Your task to perform on an android device: clear all cookies in the chrome app Image 0: 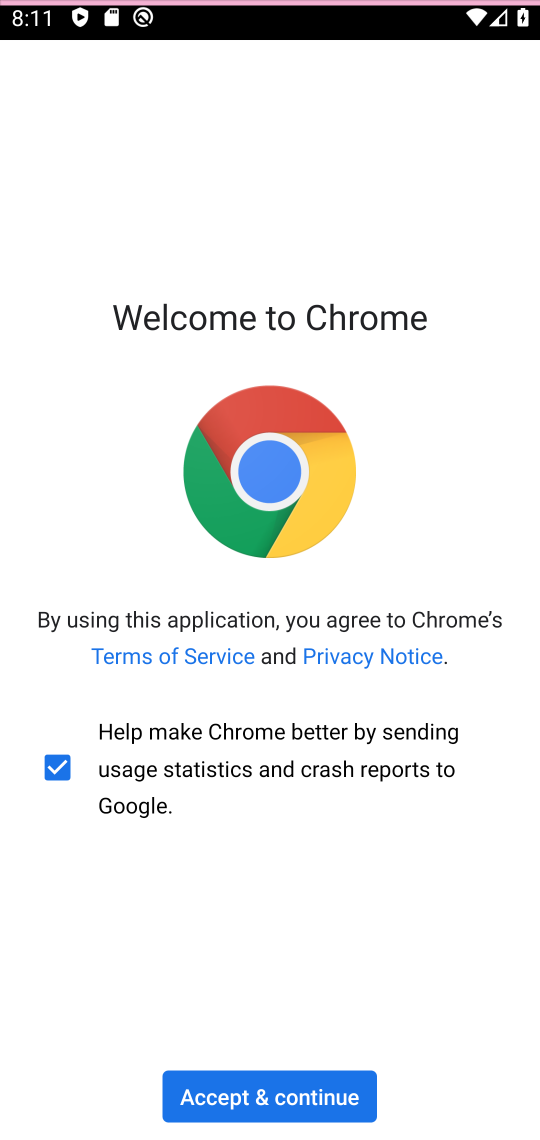
Step 0: press home button
Your task to perform on an android device: clear all cookies in the chrome app Image 1: 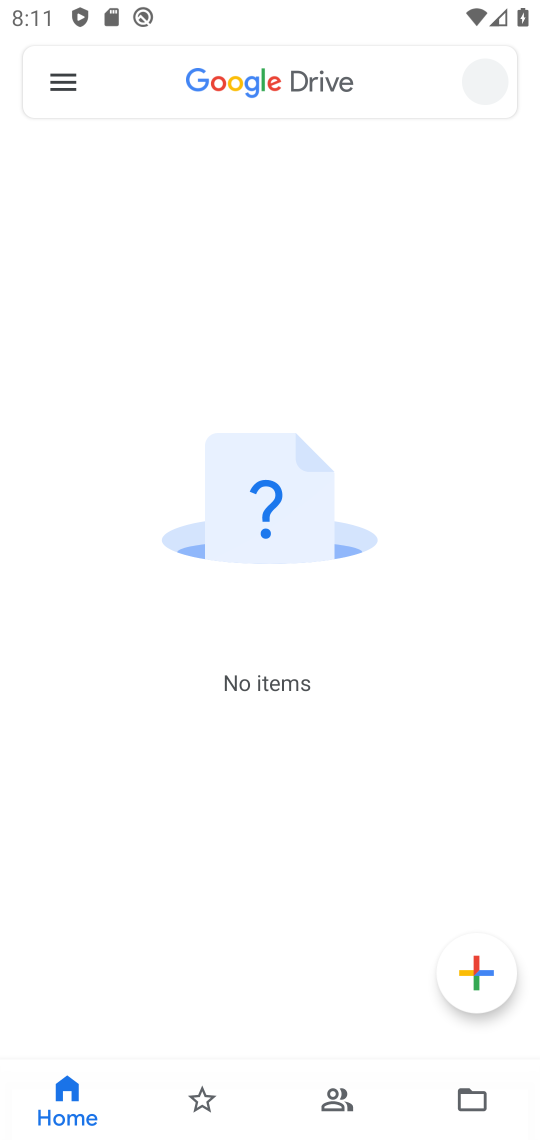
Step 1: press home button
Your task to perform on an android device: clear all cookies in the chrome app Image 2: 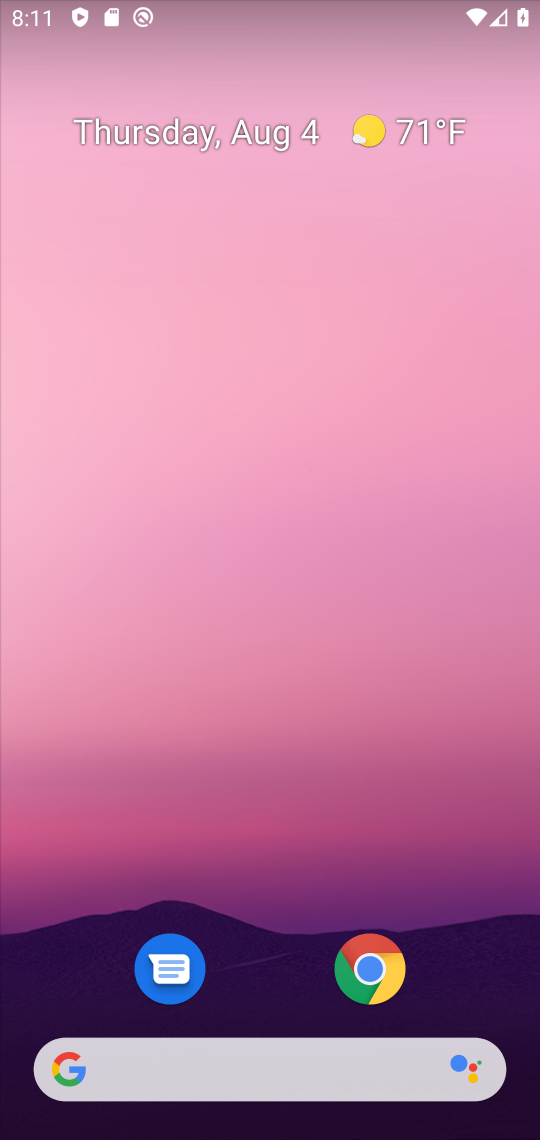
Step 2: press home button
Your task to perform on an android device: clear all cookies in the chrome app Image 3: 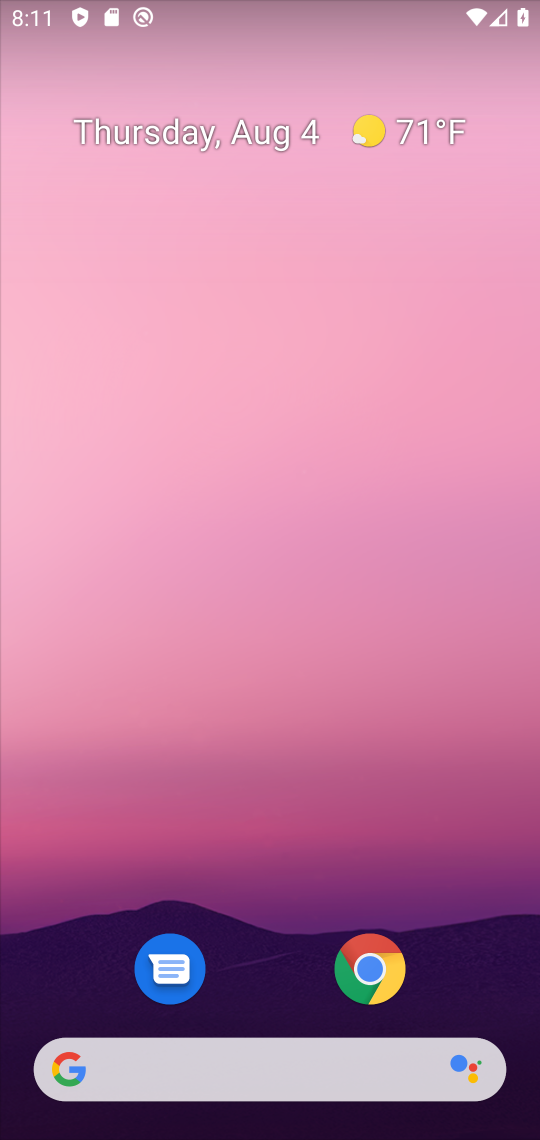
Step 3: press home button
Your task to perform on an android device: clear all cookies in the chrome app Image 4: 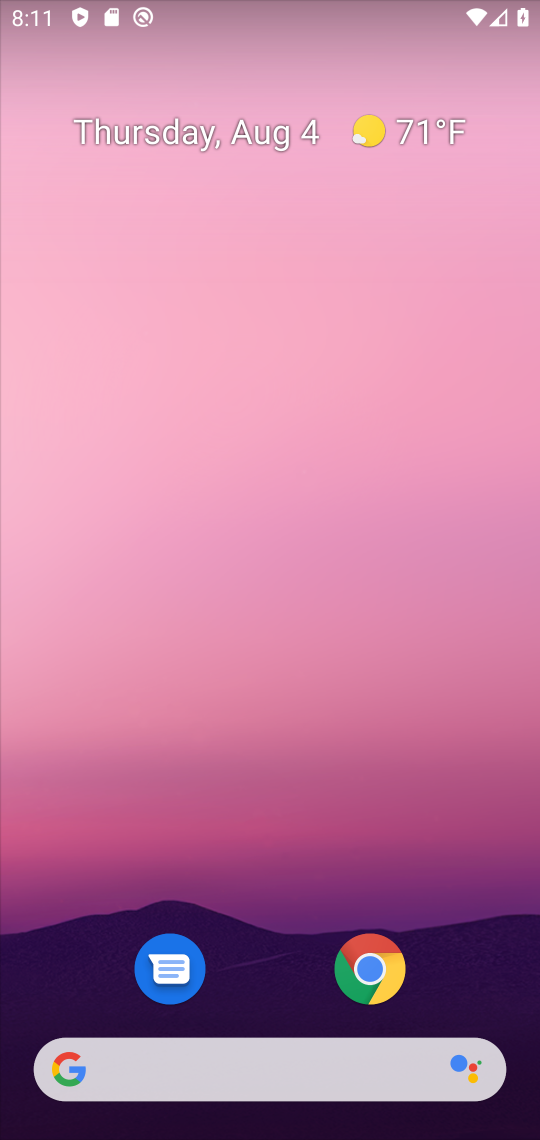
Step 4: press home button
Your task to perform on an android device: clear all cookies in the chrome app Image 5: 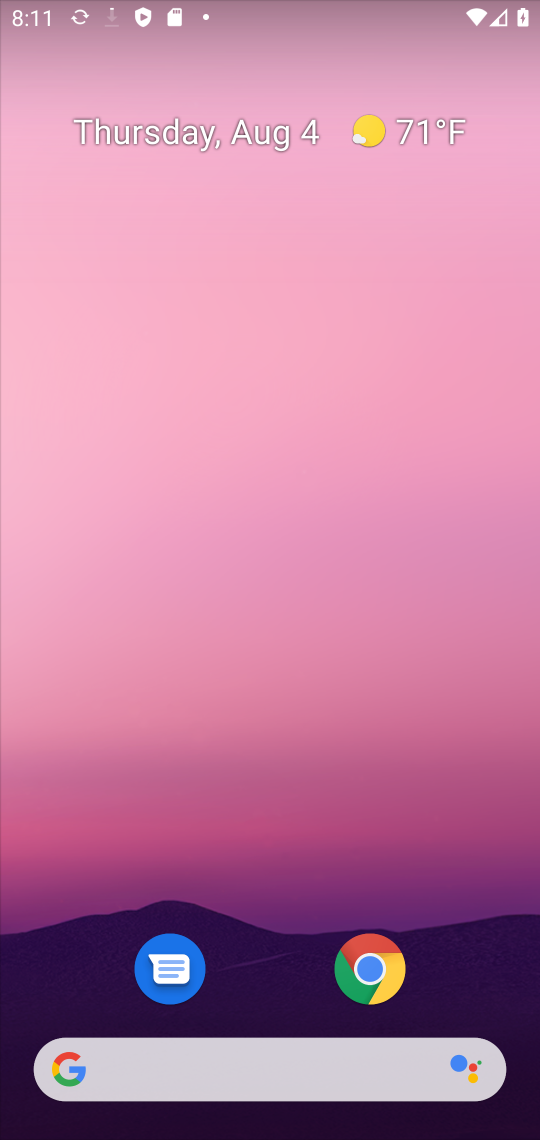
Step 5: drag from (472, 984) to (482, 88)
Your task to perform on an android device: clear all cookies in the chrome app Image 6: 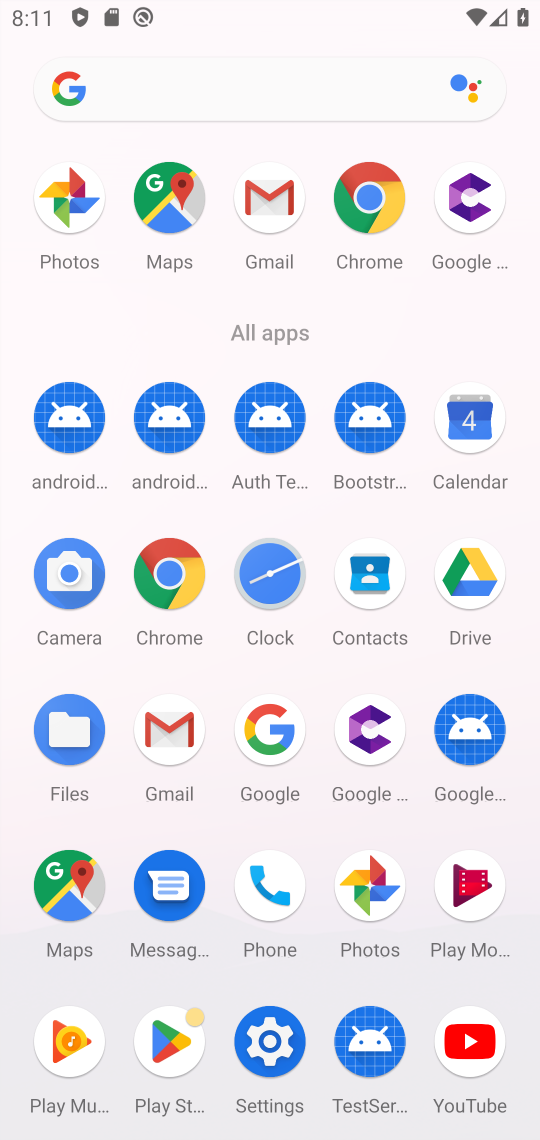
Step 6: click (378, 209)
Your task to perform on an android device: clear all cookies in the chrome app Image 7: 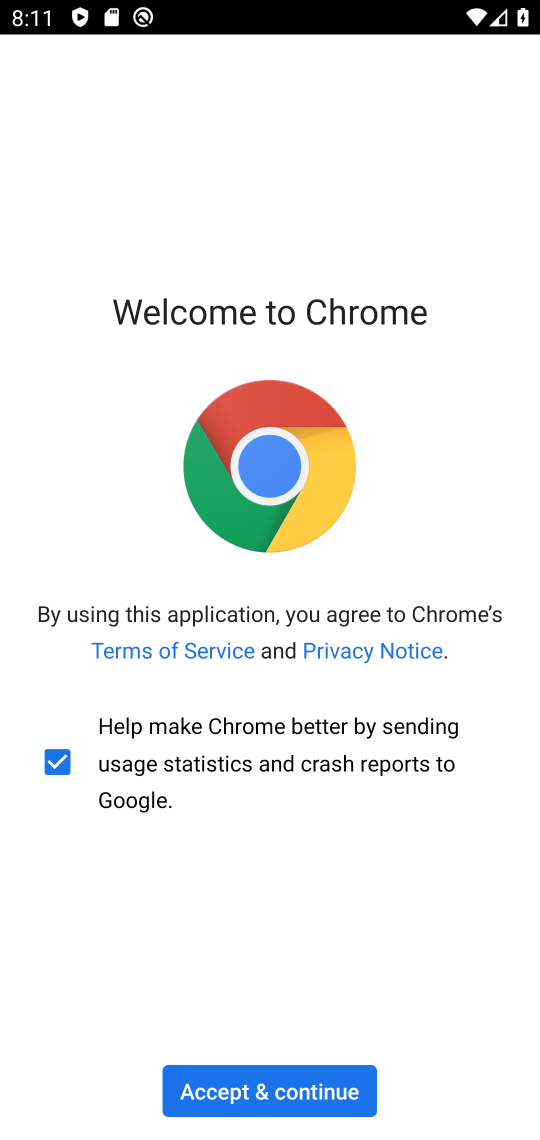
Step 7: click (281, 1106)
Your task to perform on an android device: clear all cookies in the chrome app Image 8: 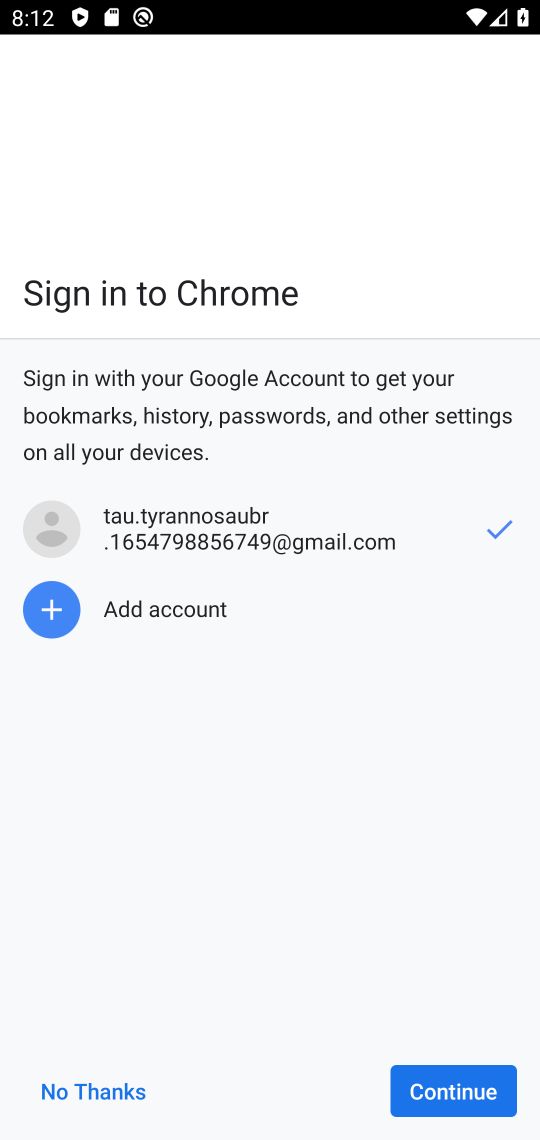
Step 8: click (461, 1089)
Your task to perform on an android device: clear all cookies in the chrome app Image 9: 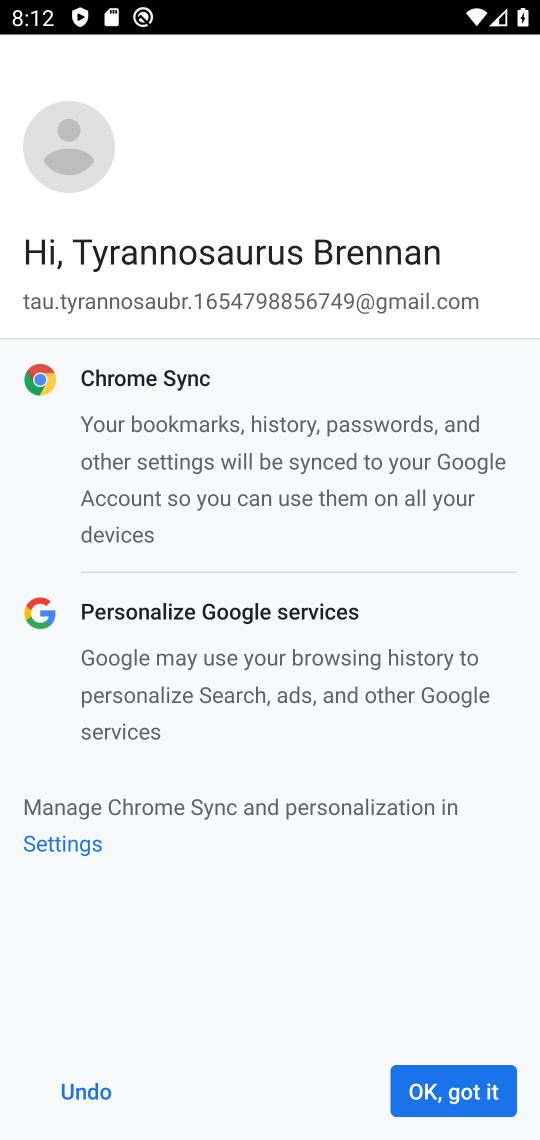
Step 9: click (461, 1089)
Your task to perform on an android device: clear all cookies in the chrome app Image 10: 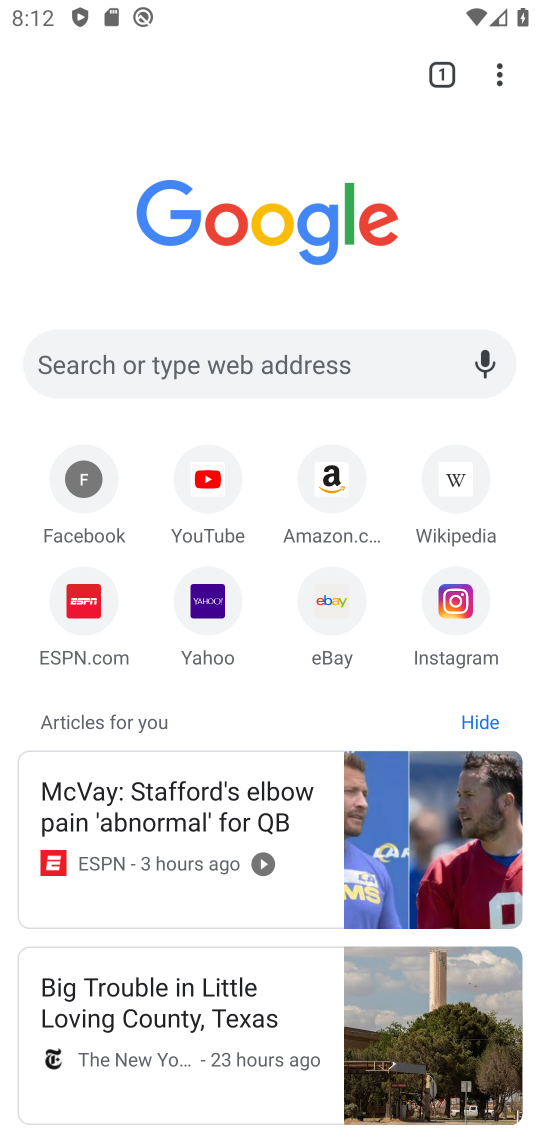
Step 10: click (500, 76)
Your task to perform on an android device: clear all cookies in the chrome app Image 11: 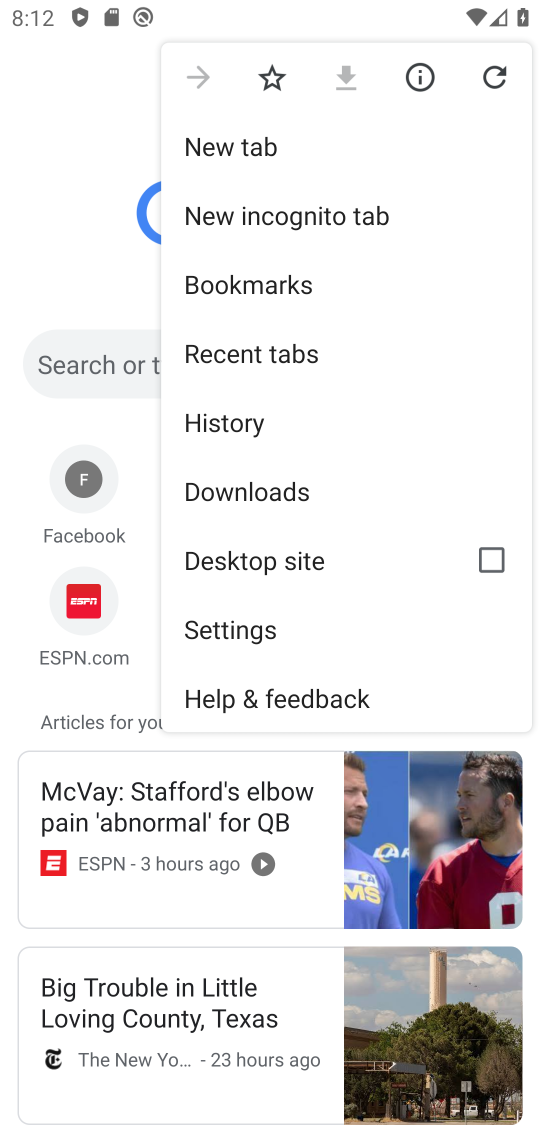
Step 11: click (275, 423)
Your task to perform on an android device: clear all cookies in the chrome app Image 12: 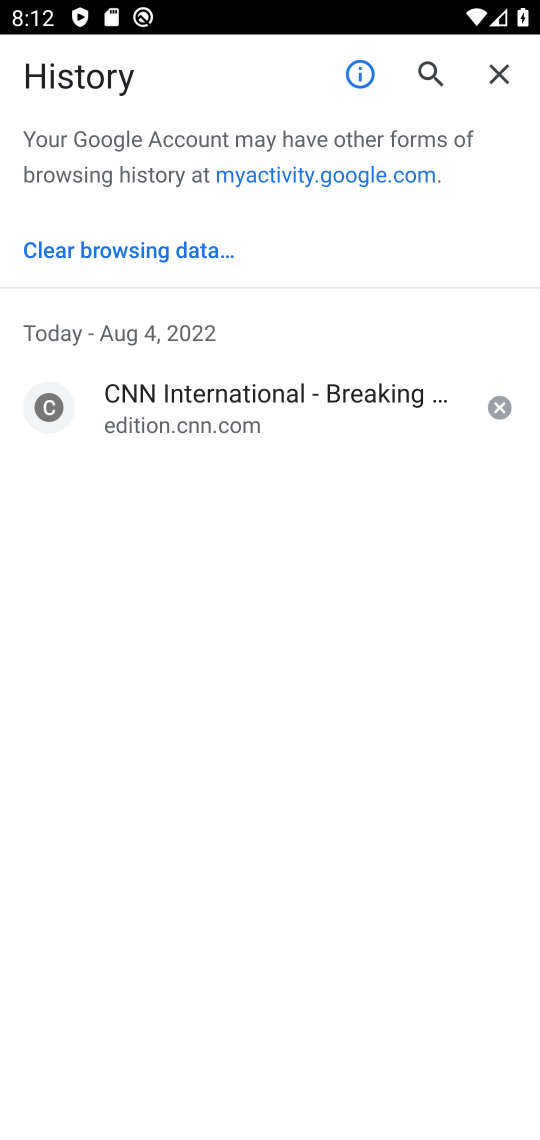
Step 12: click (118, 240)
Your task to perform on an android device: clear all cookies in the chrome app Image 13: 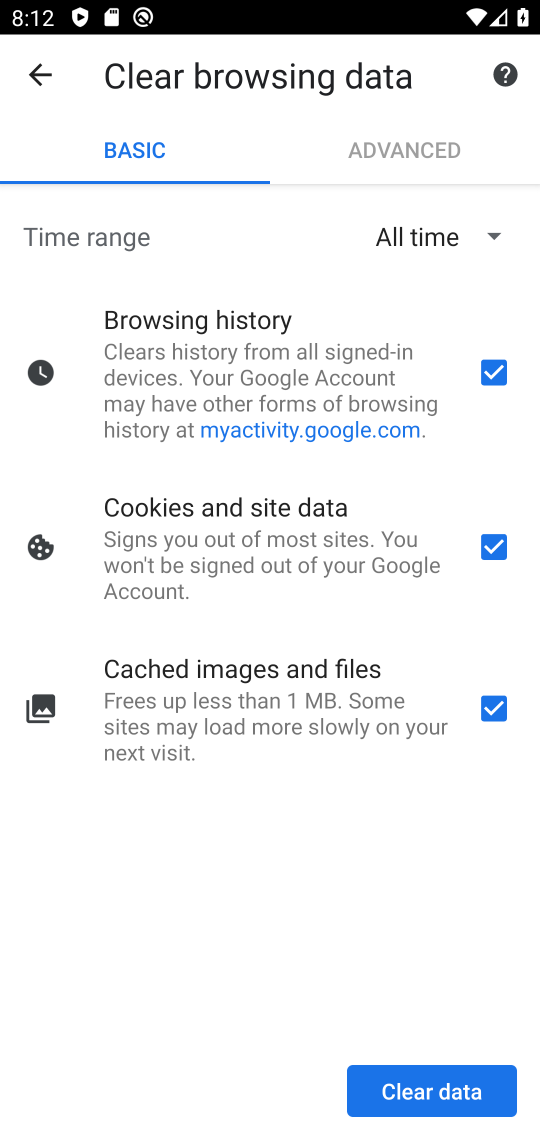
Step 13: click (493, 357)
Your task to perform on an android device: clear all cookies in the chrome app Image 14: 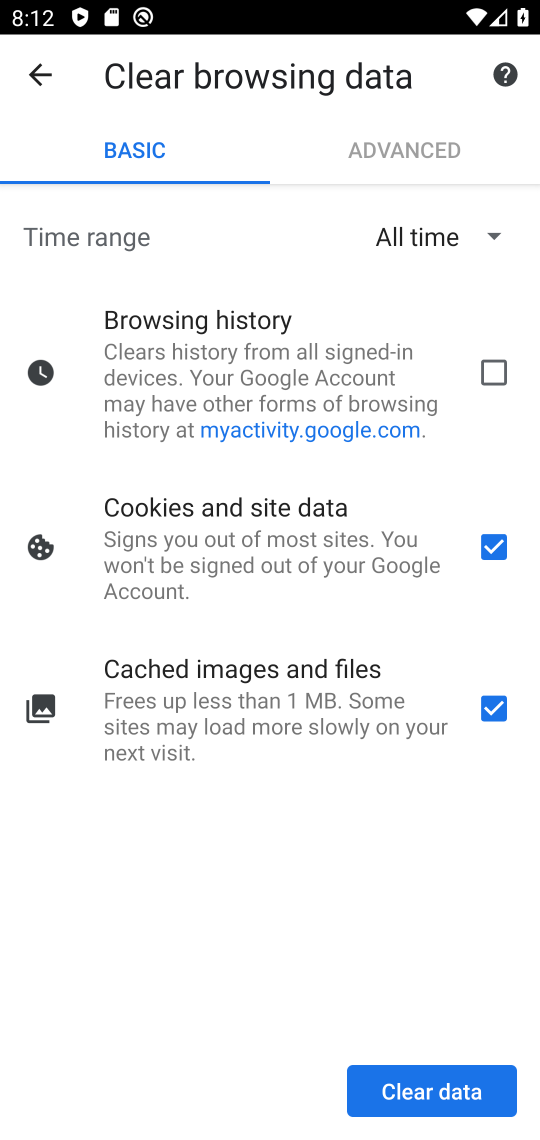
Step 14: click (494, 695)
Your task to perform on an android device: clear all cookies in the chrome app Image 15: 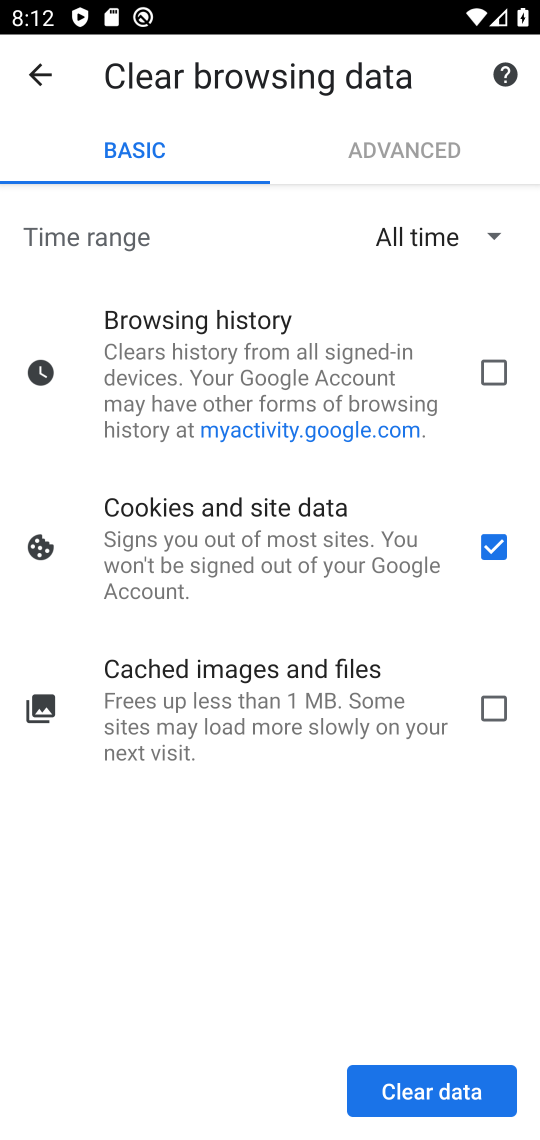
Step 15: click (439, 1089)
Your task to perform on an android device: clear all cookies in the chrome app Image 16: 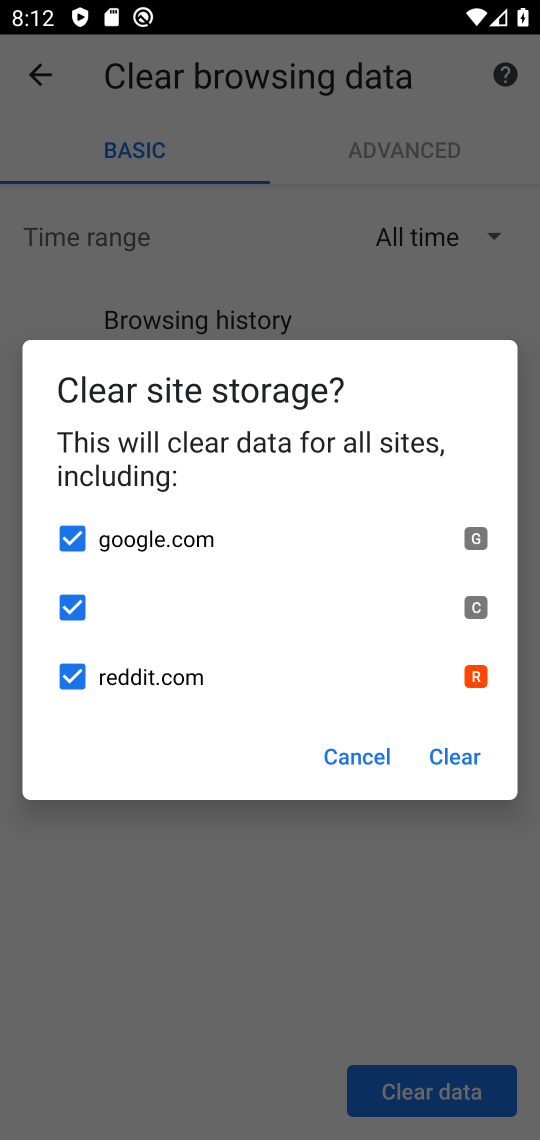
Step 16: click (441, 770)
Your task to perform on an android device: clear all cookies in the chrome app Image 17: 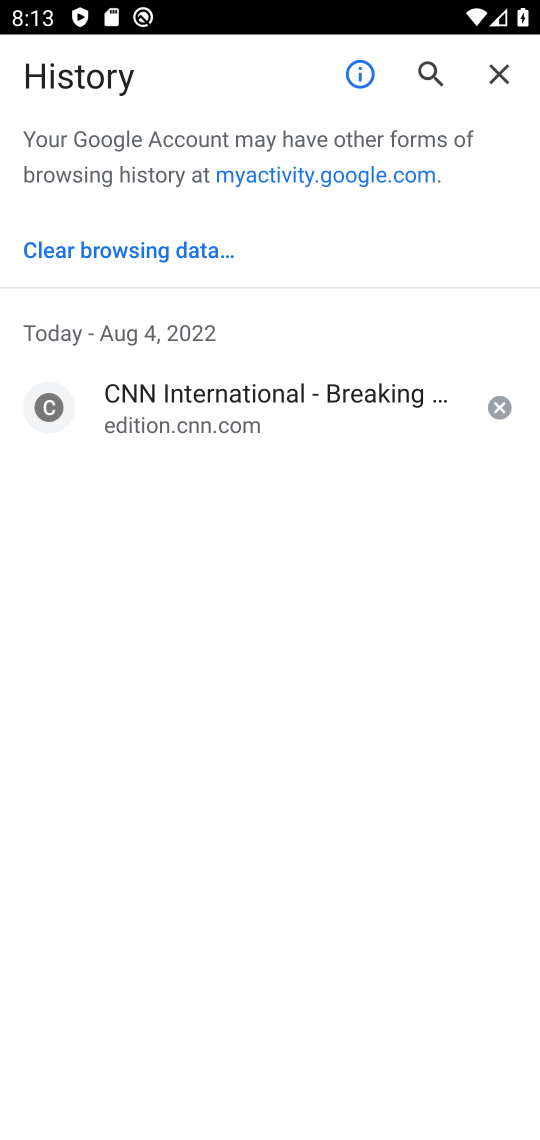
Step 17: task complete